Your task to perform on an android device: see creations saved in the google photos Image 0: 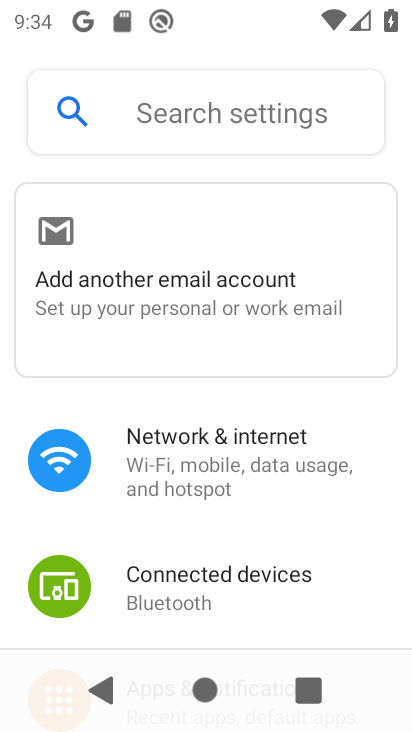
Step 0: press home button
Your task to perform on an android device: see creations saved in the google photos Image 1: 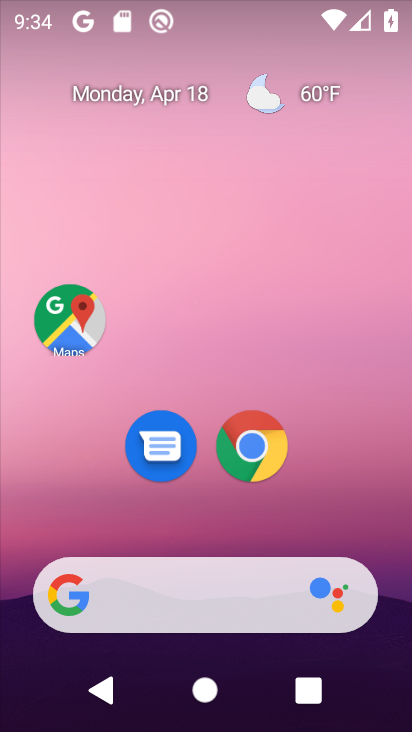
Step 1: drag from (387, 505) to (389, 119)
Your task to perform on an android device: see creations saved in the google photos Image 2: 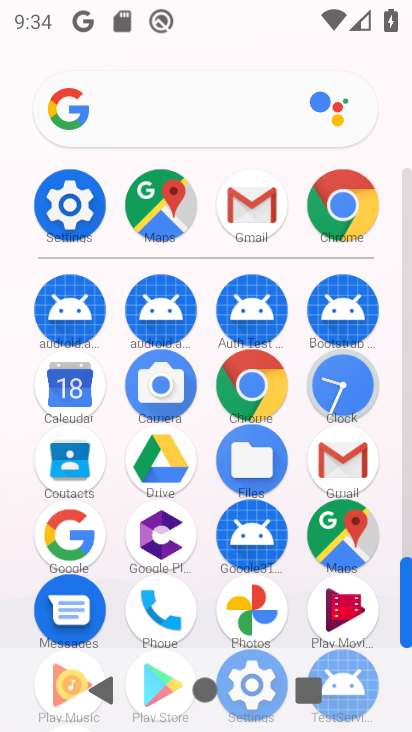
Step 2: click (254, 617)
Your task to perform on an android device: see creations saved in the google photos Image 3: 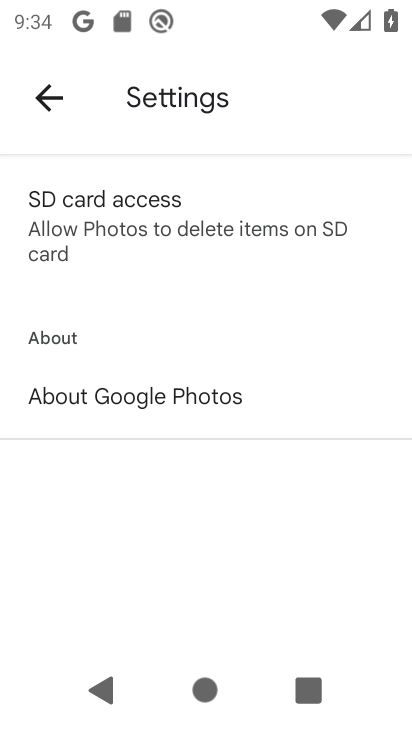
Step 3: click (42, 101)
Your task to perform on an android device: see creations saved in the google photos Image 4: 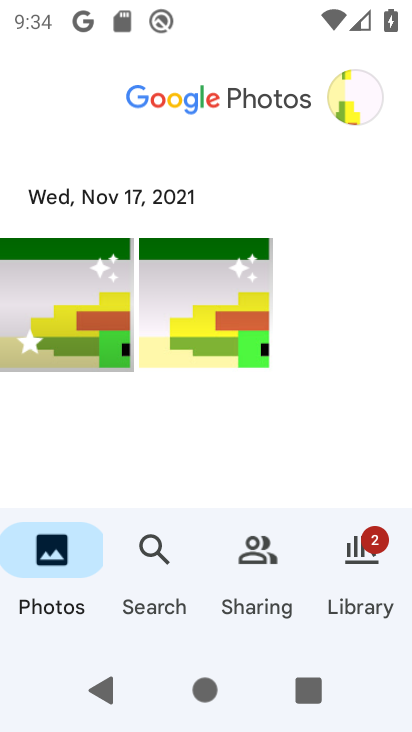
Step 4: click (158, 577)
Your task to perform on an android device: see creations saved in the google photos Image 5: 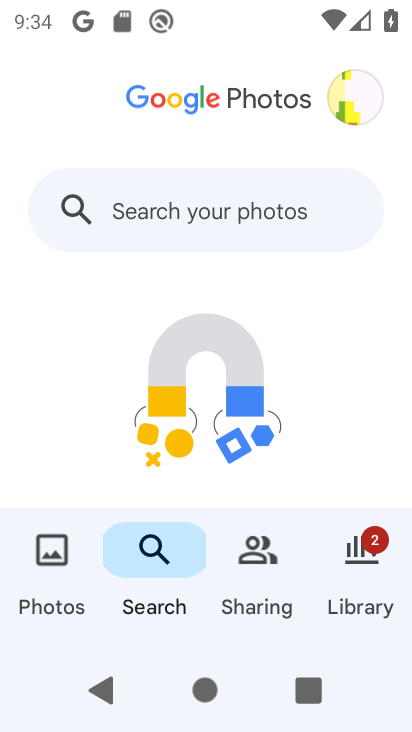
Step 5: drag from (316, 429) to (317, 177)
Your task to perform on an android device: see creations saved in the google photos Image 6: 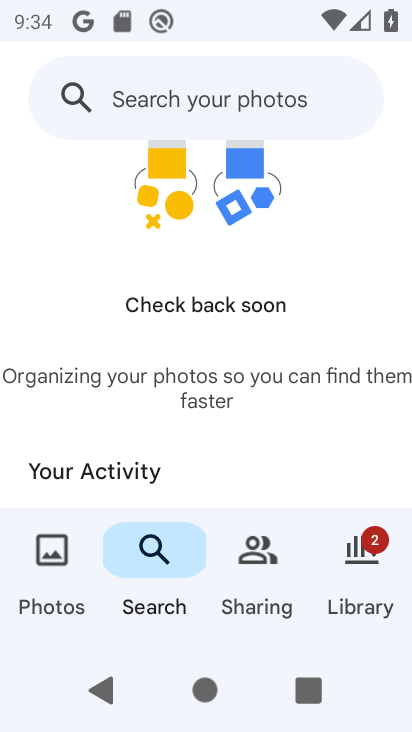
Step 6: drag from (288, 428) to (305, 203)
Your task to perform on an android device: see creations saved in the google photos Image 7: 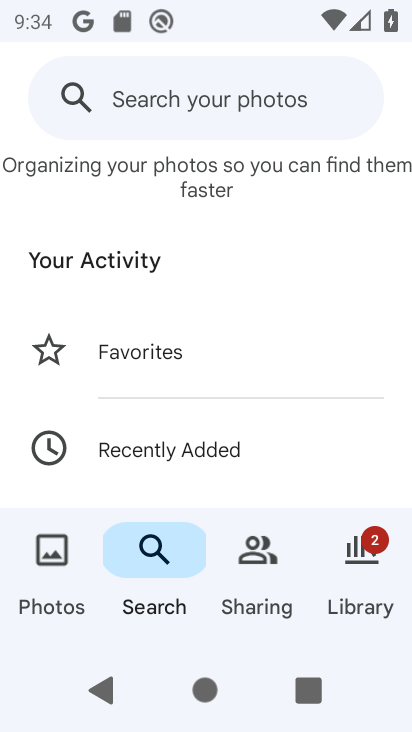
Step 7: drag from (300, 444) to (319, 200)
Your task to perform on an android device: see creations saved in the google photos Image 8: 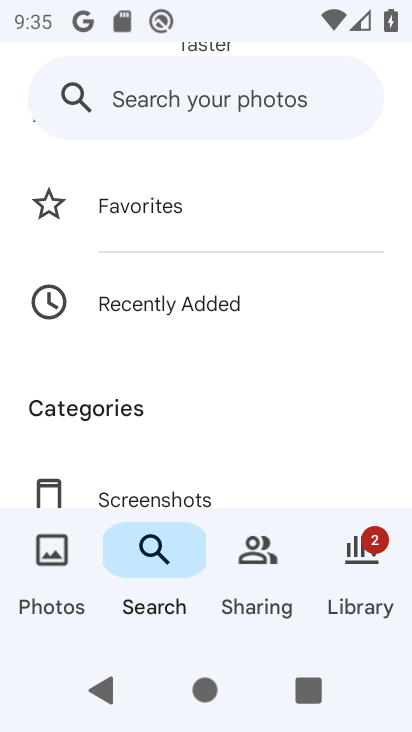
Step 8: drag from (321, 426) to (320, 191)
Your task to perform on an android device: see creations saved in the google photos Image 9: 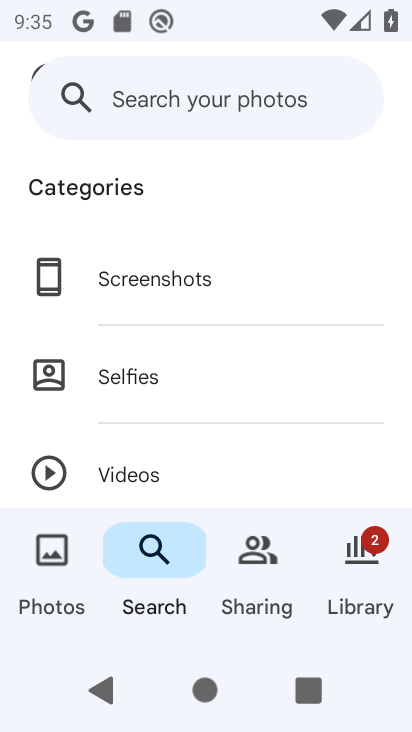
Step 9: drag from (303, 429) to (315, 207)
Your task to perform on an android device: see creations saved in the google photos Image 10: 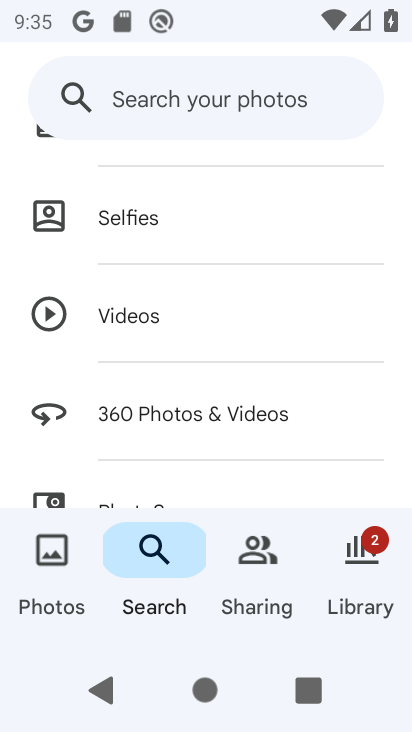
Step 10: drag from (339, 435) to (344, 206)
Your task to perform on an android device: see creations saved in the google photos Image 11: 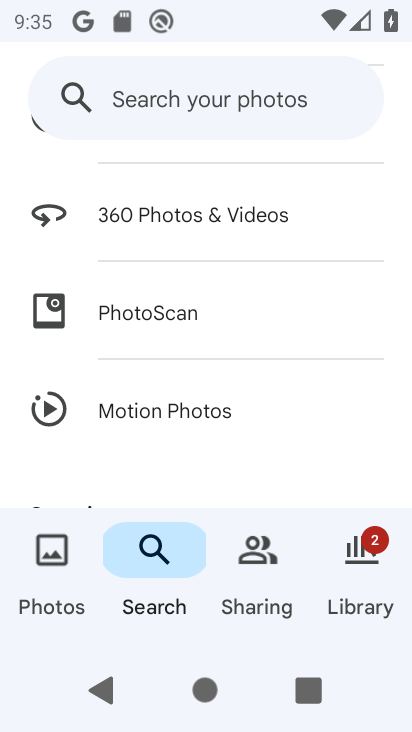
Step 11: drag from (359, 452) to (364, 232)
Your task to perform on an android device: see creations saved in the google photos Image 12: 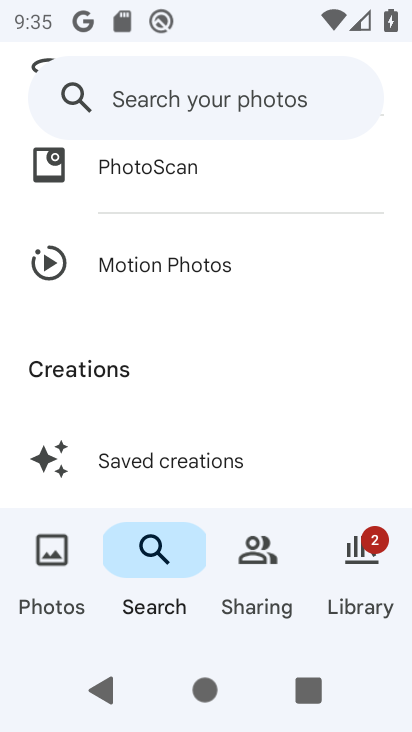
Step 12: drag from (331, 417) to (339, 213)
Your task to perform on an android device: see creations saved in the google photos Image 13: 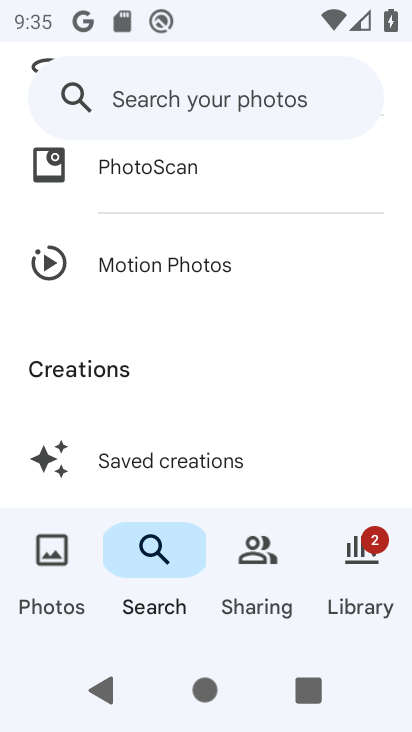
Step 13: click (196, 457)
Your task to perform on an android device: see creations saved in the google photos Image 14: 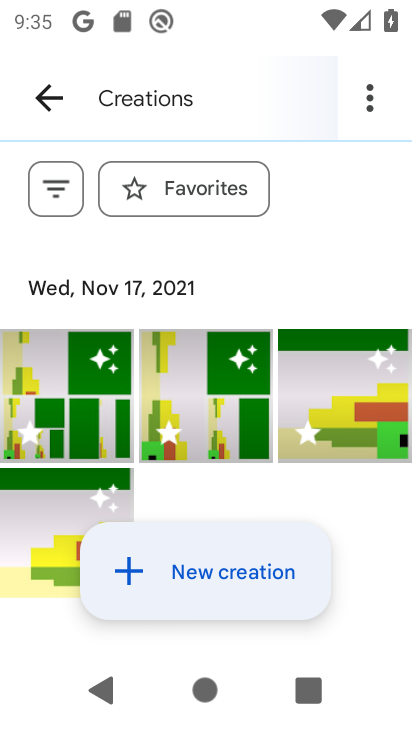
Step 14: task complete